Your task to perform on an android device: Check the settings for the Amazon Shopping app Image 0: 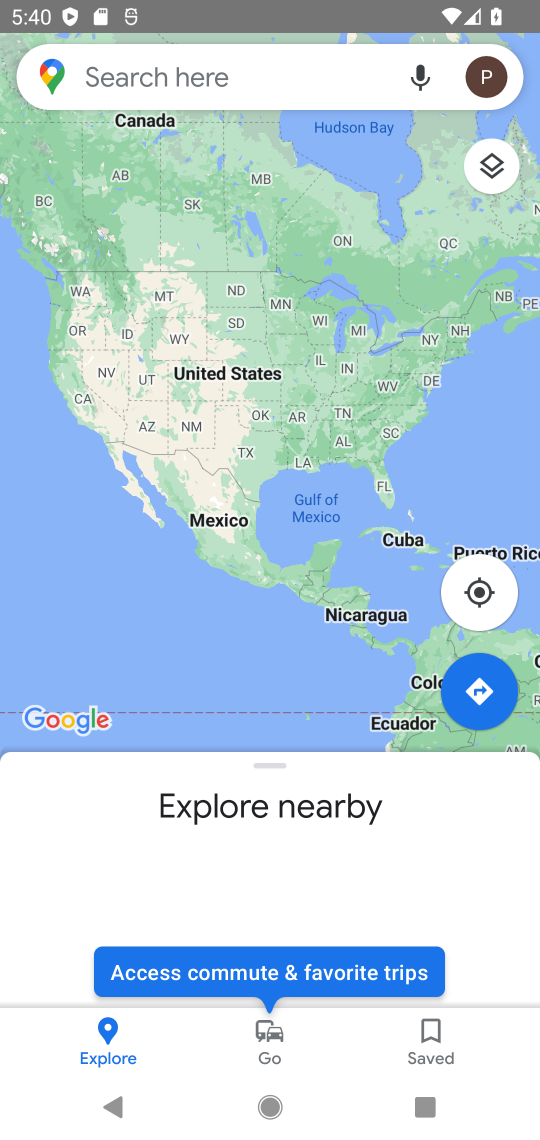
Step 0: press home button
Your task to perform on an android device: Check the settings for the Amazon Shopping app Image 1: 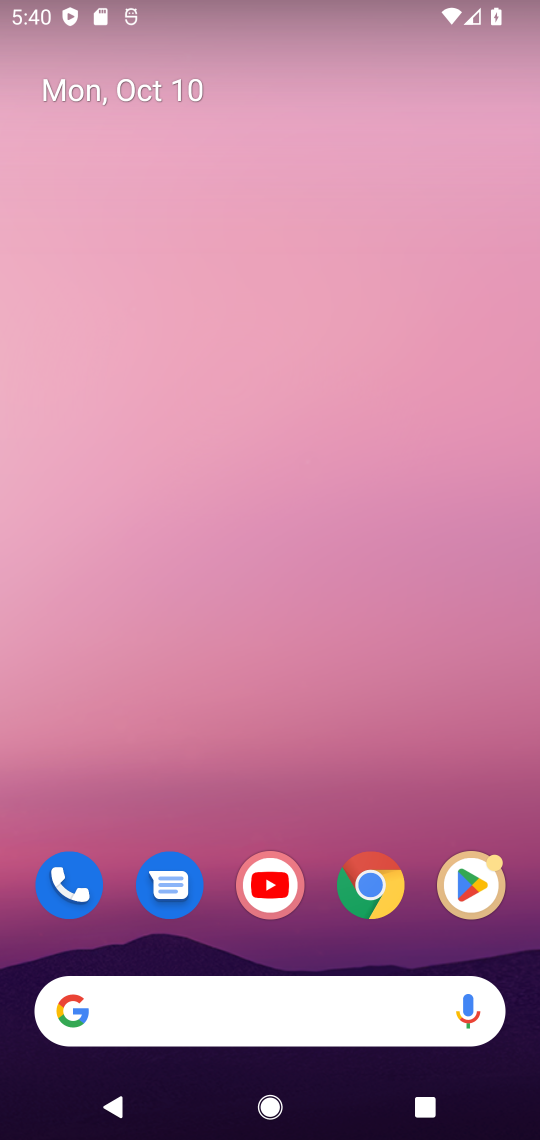
Step 1: drag from (237, 816) to (190, 177)
Your task to perform on an android device: Check the settings for the Amazon Shopping app Image 2: 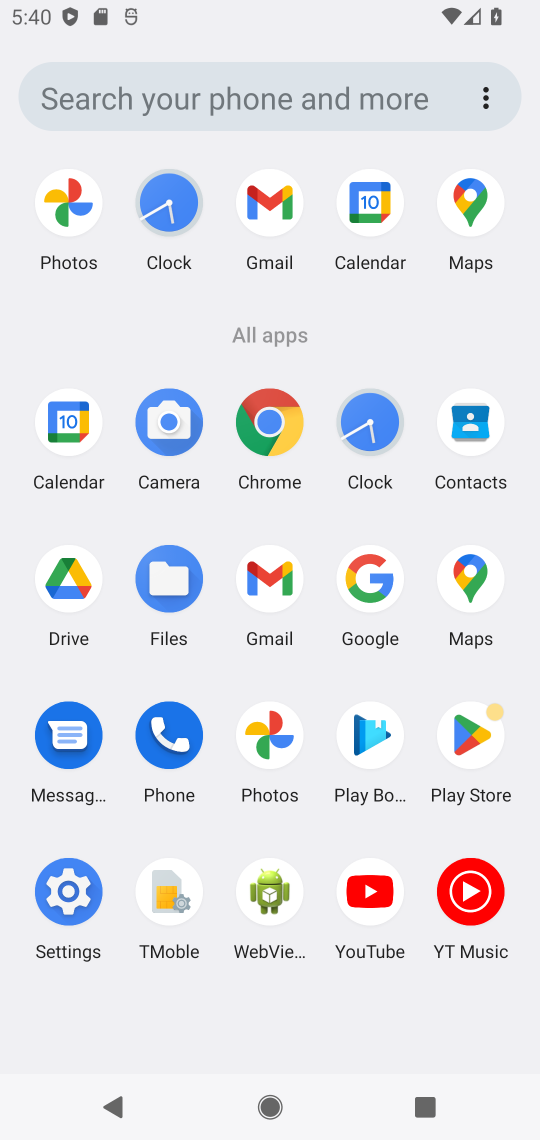
Step 2: click (487, 736)
Your task to perform on an android device: Check the settings for the Amazon Shopping app Image 3: 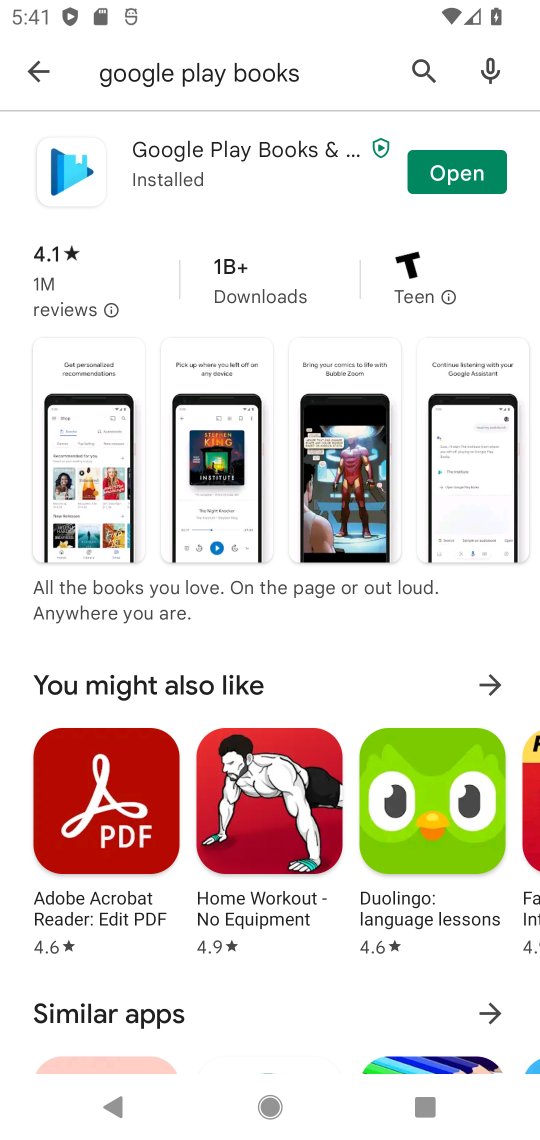
Step 3: click (429, 74)
Your task to perform on an android device: Check the settings for the Amazon Shopping app Image 4: 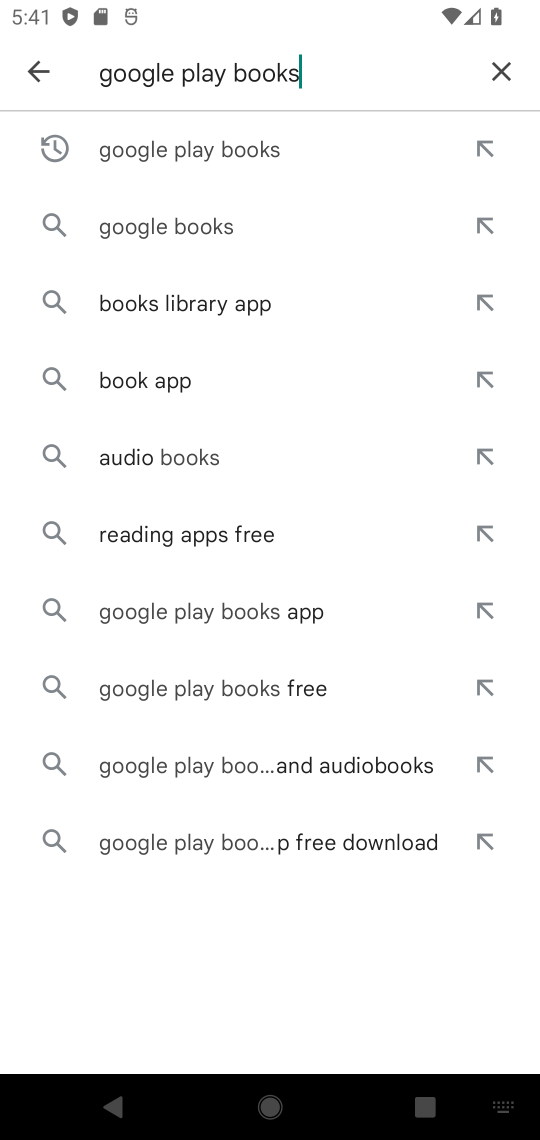
Step 4: click (503, 75)
Your task to perform on an android device: Check the settings for the Amazon Shopping app Image 5: 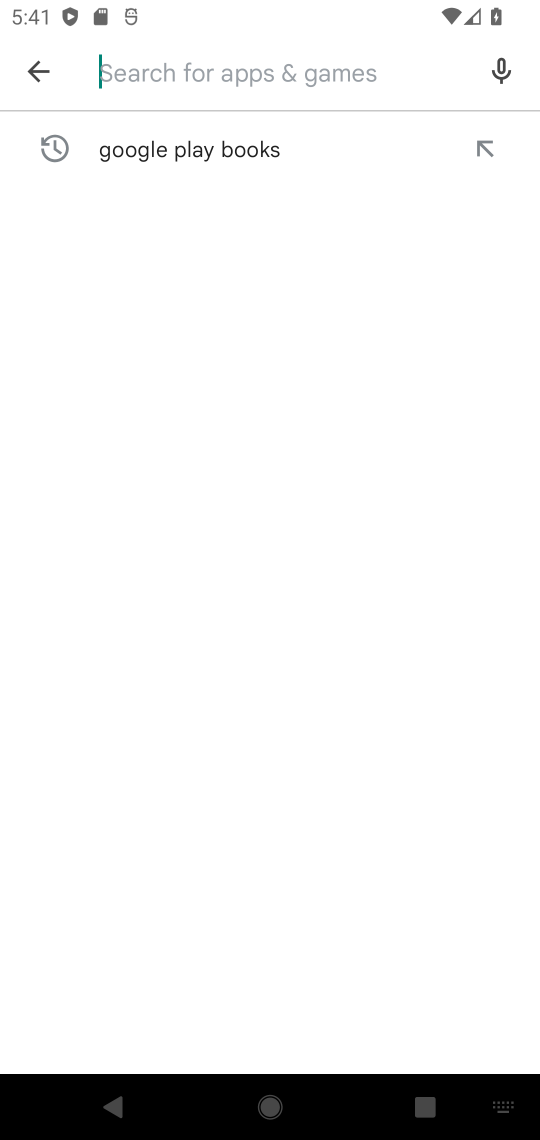
Step 5: type "amazon"
Your task to perform on an android device: Check the settings for the Amazon Shopping app Image 6: 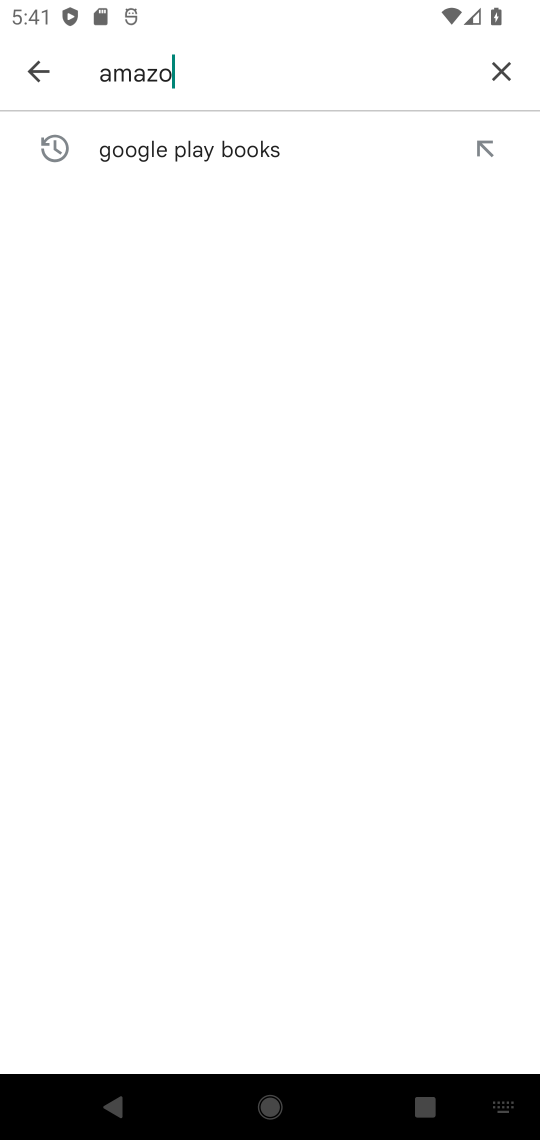
Step 6: type ""
Your task to perform on an android device: Check the settings for the Amazon Shopping app Image 7: 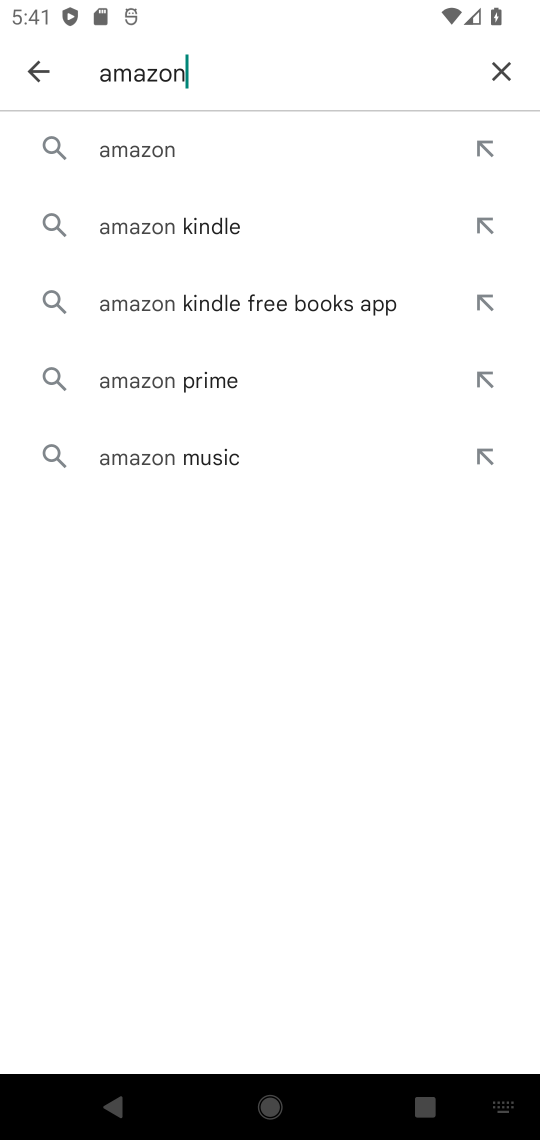
Step 7: click (197, 154)
Your task to perform on an android device: Check the settings for the Amazon Shopping app Image 8: 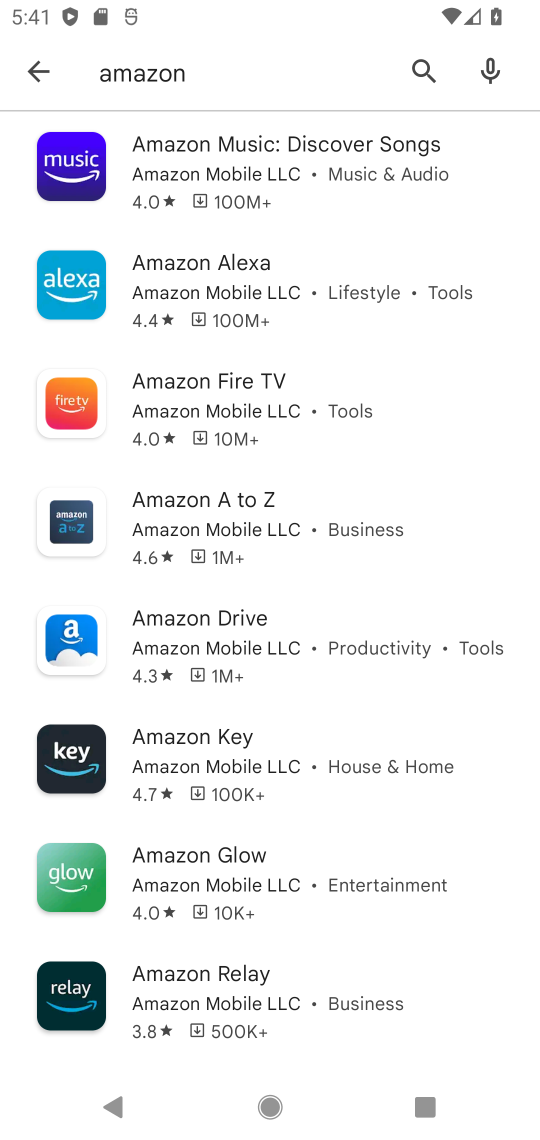
Step 8: click (207, 75)
Your task to perform on an android device: Check the settings for the Amazon Shopping app Image 9: 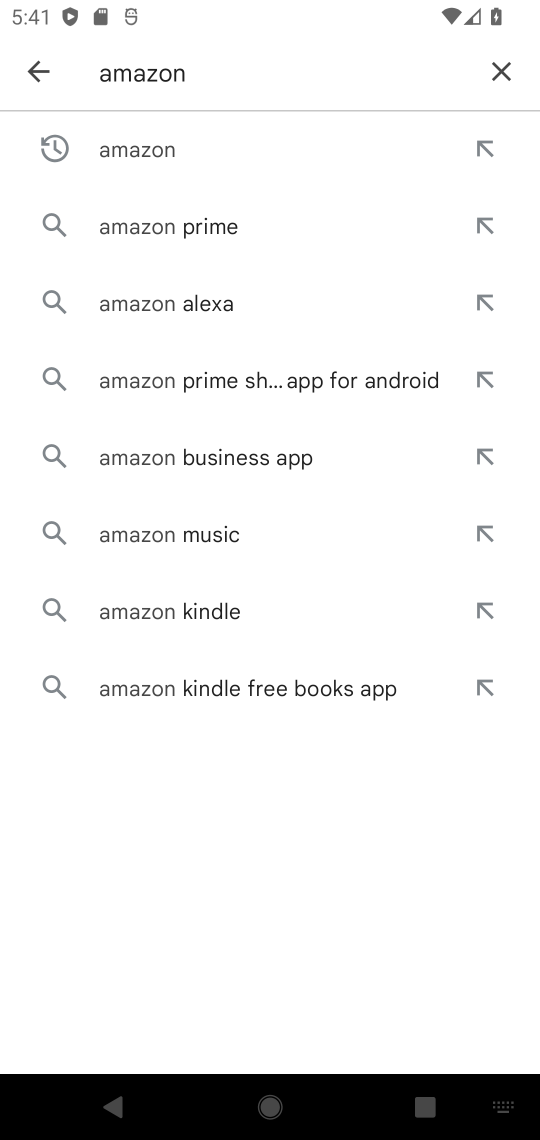
Step 9: click (427, 64)
Your task to perform on an android device: Check the settings for the Amazon Shopping app Image 10: 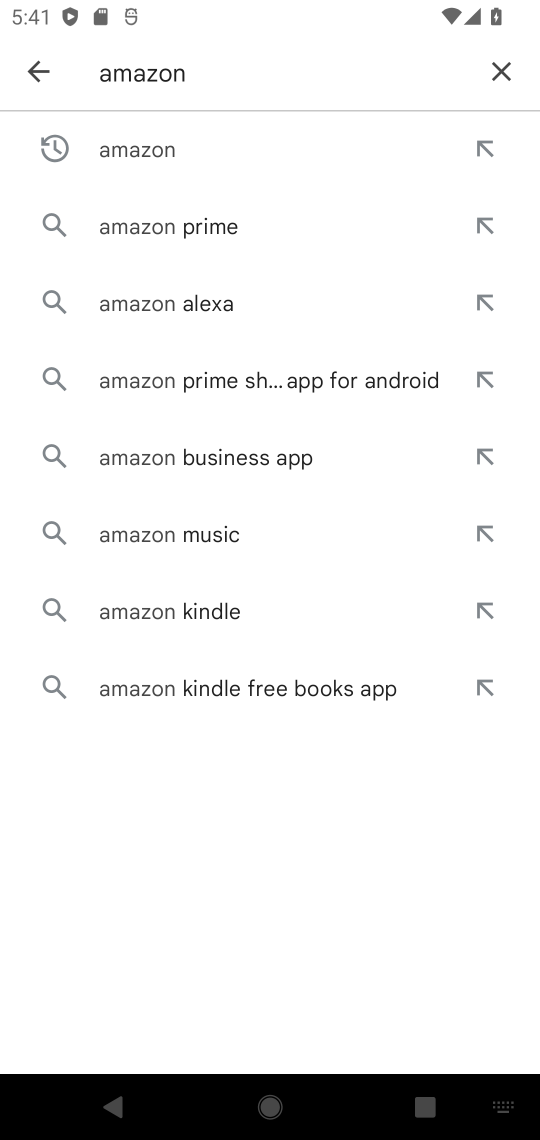
Step 10: type " shopping"
Your task to perform on an android device: Check the settings for the Amazon Shopping app Image 11: 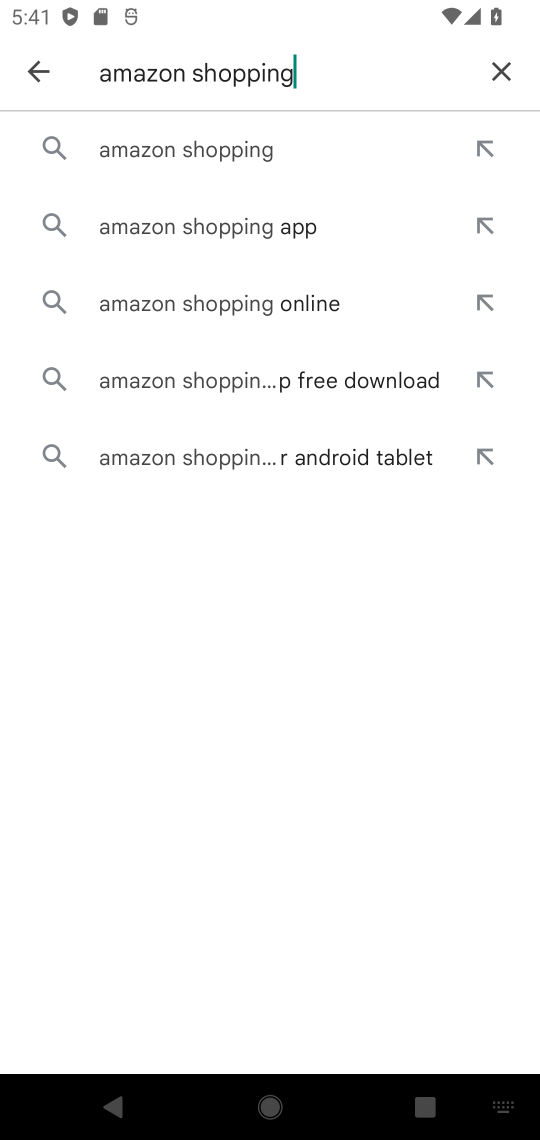
Step 11: click (228, 160)
Your task to perform on an android device: Check the settings for the Amazon Shopping app Image 12: 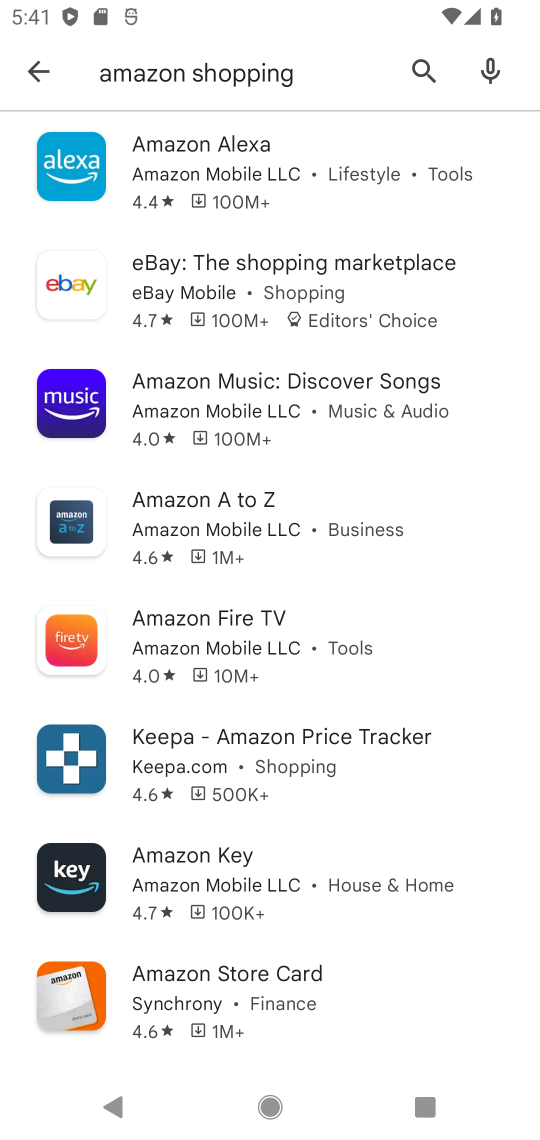
Step 12: drag from (290, 698) to (357, 378)
Your task to perform on an android device: Check the settings for the Amazon Shopping app Image 13: 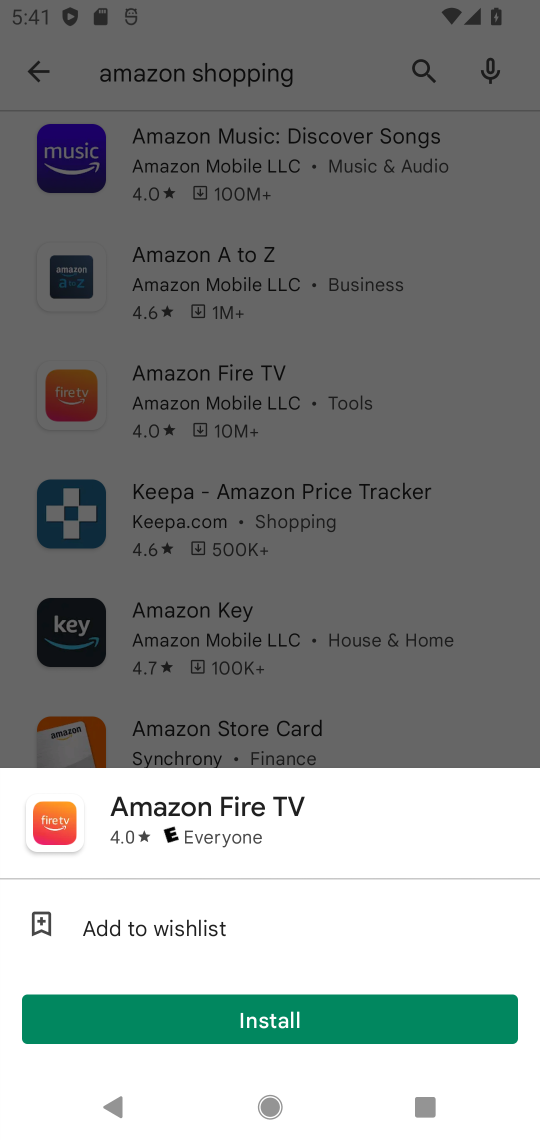
Step 13: click (491, 573)
Your task to perform on an android device: Check the settings for the Amazon Shopping app Image 14: 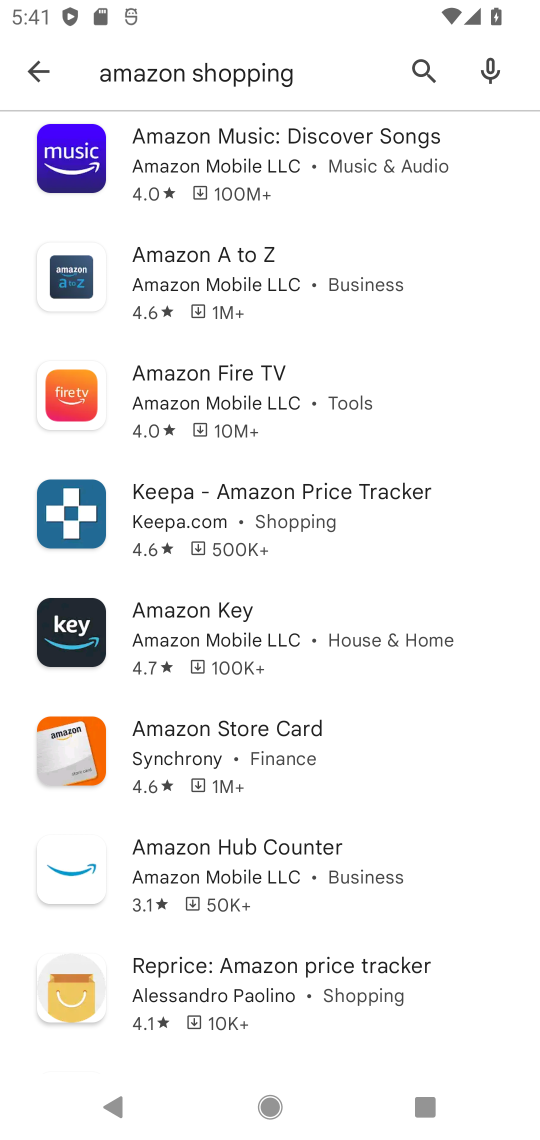
Step 14: drag from (291, 852) to (287, 676)
Your task to perform on an android device: Check the settings for the Amazon Shopping app Image 15: 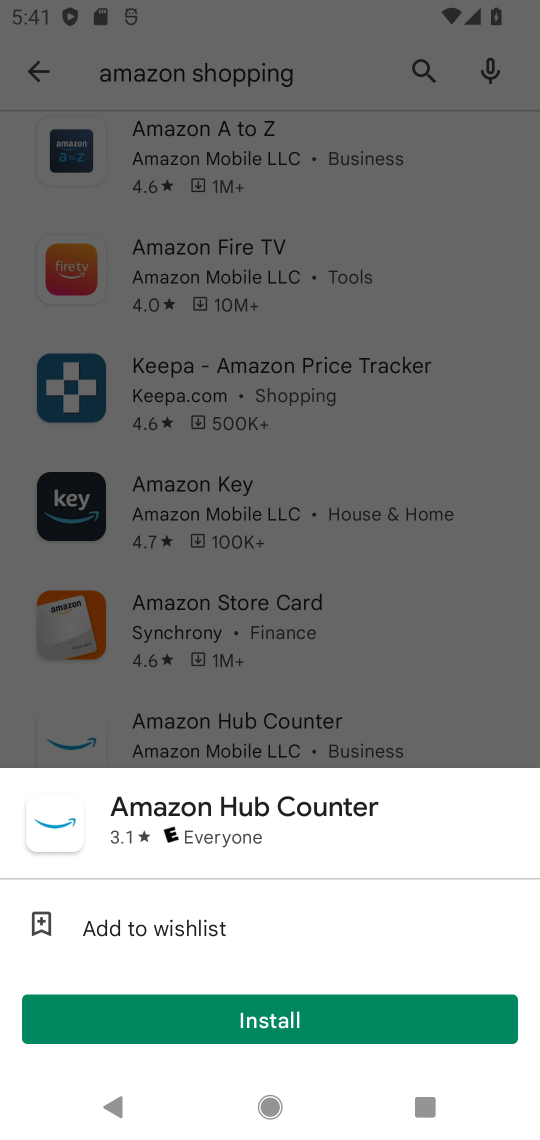
Step 15: click (287, 676)
Your task to perform on an android device: Check the settings for the Amazon Shopping app Image 16: 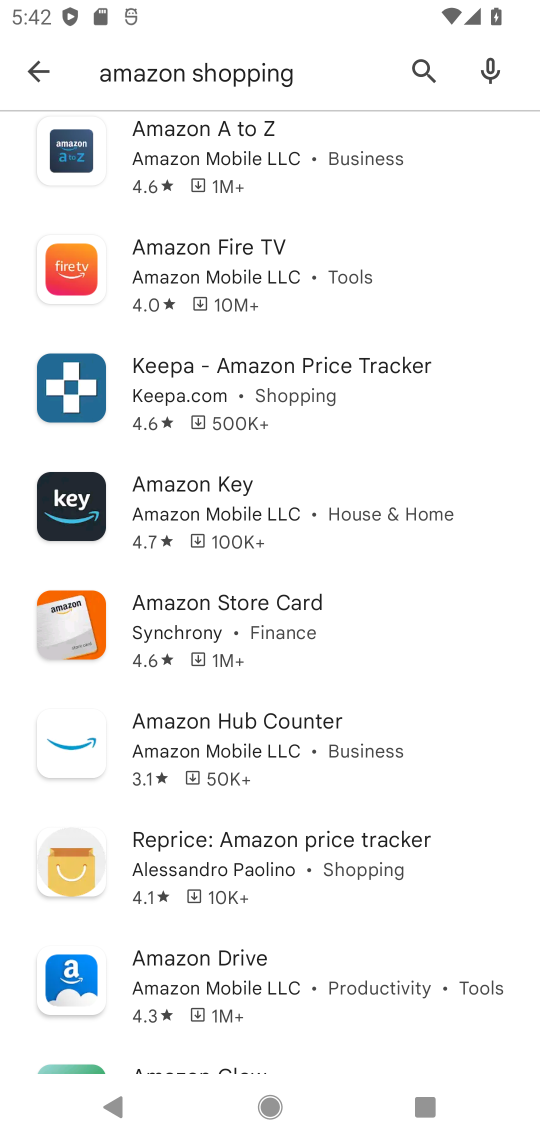
Step 16: drag from (276, 870) to (339, 899)
Your task to perform on an android device: Check the settings for the Amazon Shopping app Image 17: 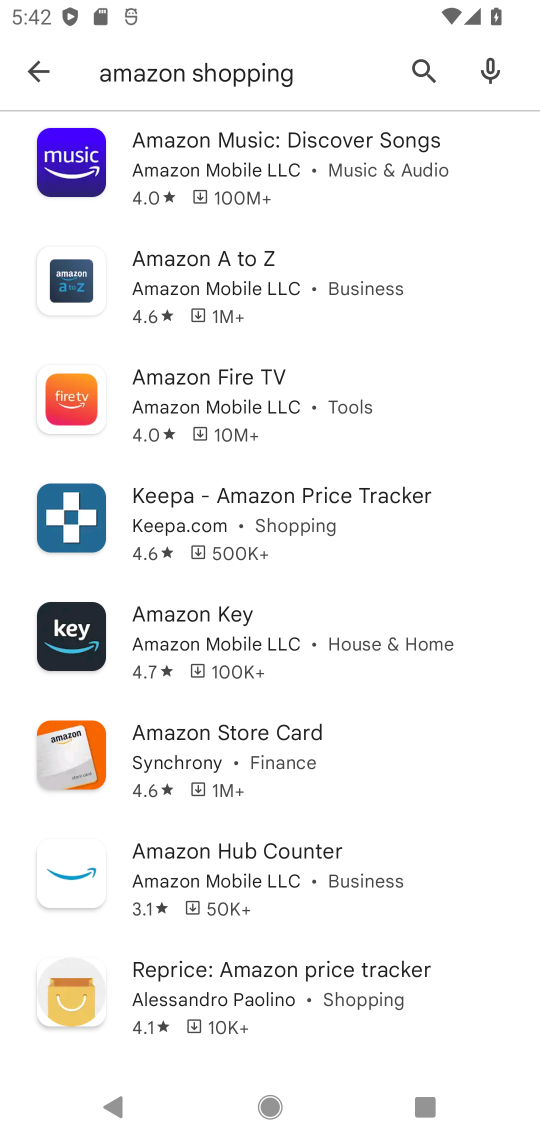
Step 17: drag from (374, 306) to (415, 872)
Your task to perform on an android device: Check the settings for the Amazon Shopping app Image 18: 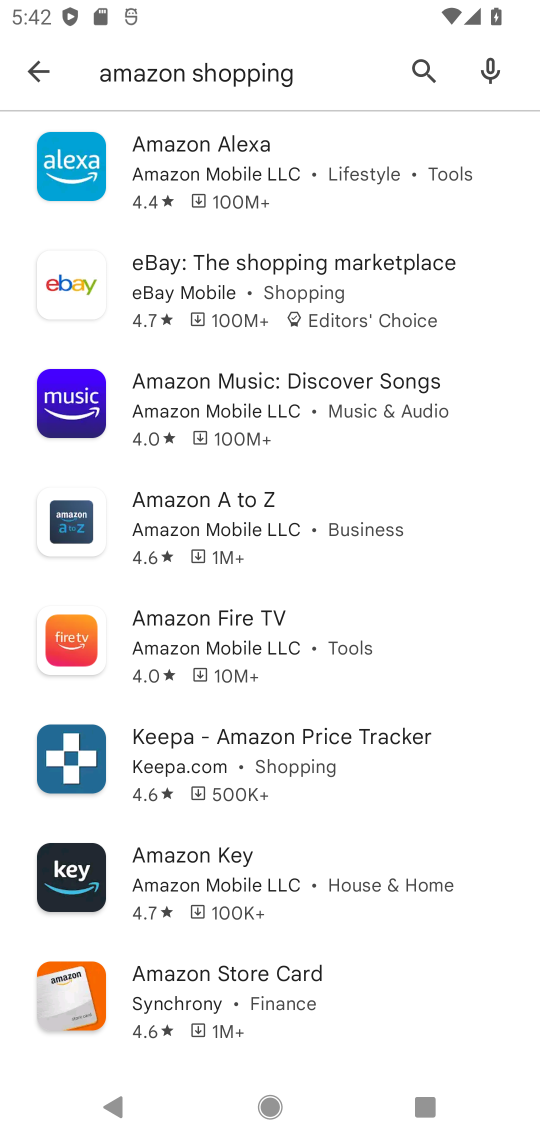
Step 18: click (217, 133)
Your task to perform on an android device: Check the settings for the Amazon Shopping app Image 19: 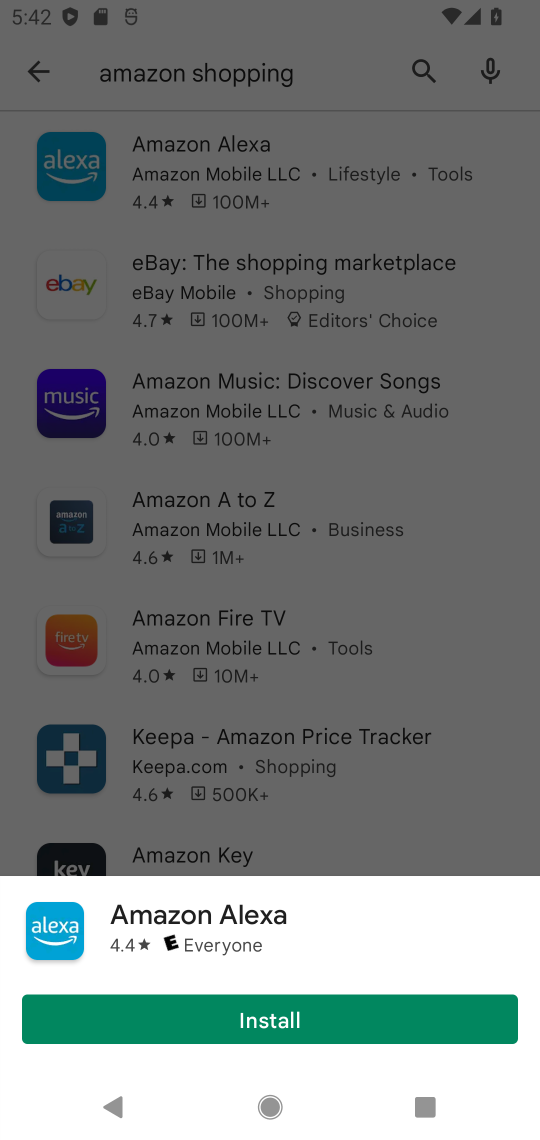
Step 19: click (244, 912)
Your task to perform on an android device: Check the settings for the Amazon Shopping app Image 20: 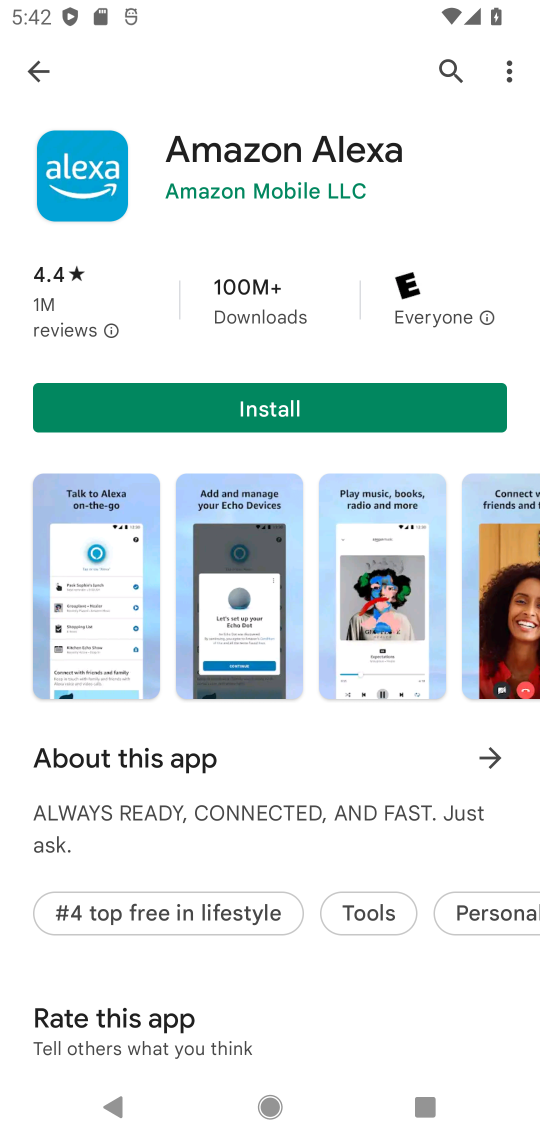
Step 20: task complete